Your task to perform on an android device: toggle translation in the chrome app Image 0: 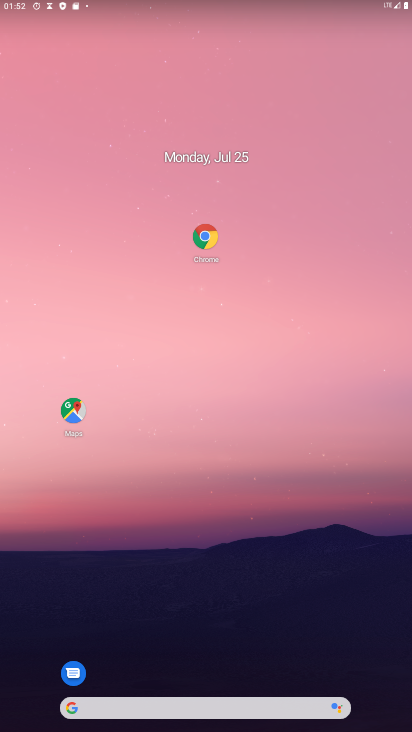
Step 0: drag from (206, 704) to (323, 70)
Your task to perform on an android device: toggle translation in the chrome app Image 1: 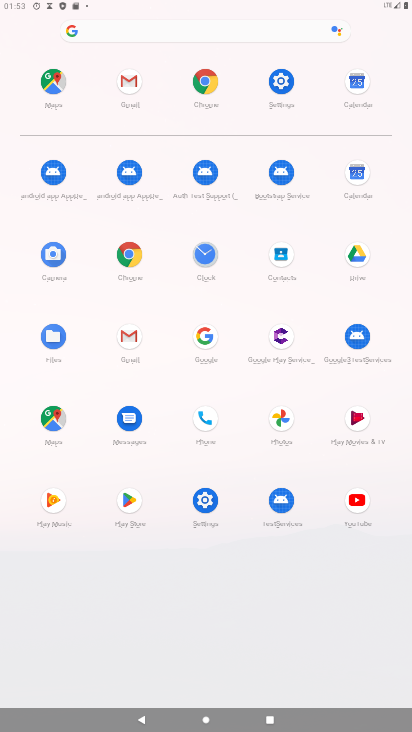
Step 1: click (133, 256)
Your task to perform on an android device: toggle translation in the chrome app Image 2: 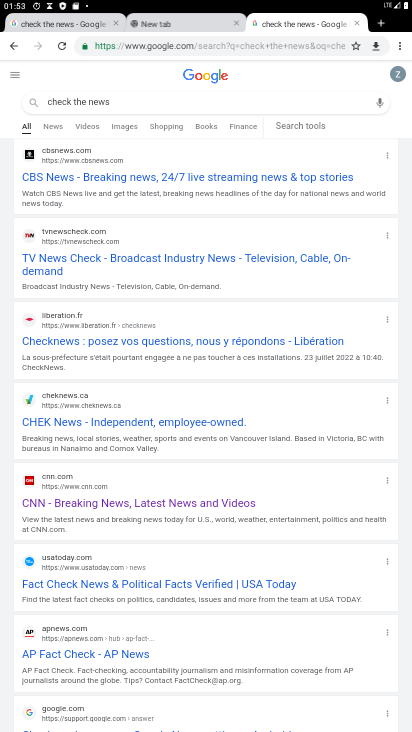
Step 2: drag from (396, 45) to (304, 280)
Your task to perform on an android device: toggle translation in the chrome app Image 3: 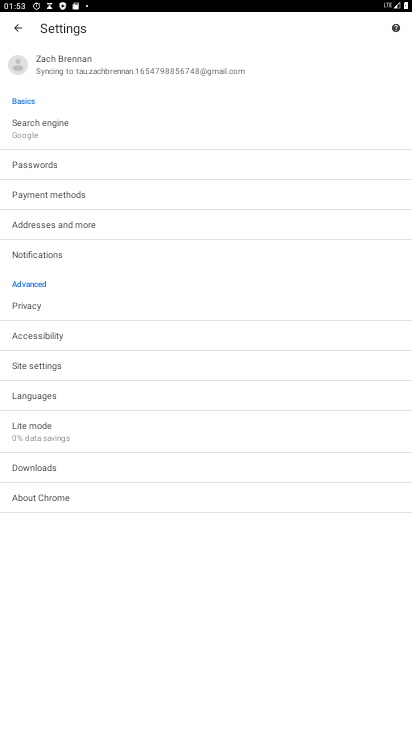
Step 3: click (72, 398)
Your task to perform on an android device: toggle translation in the chrome app Image 4: 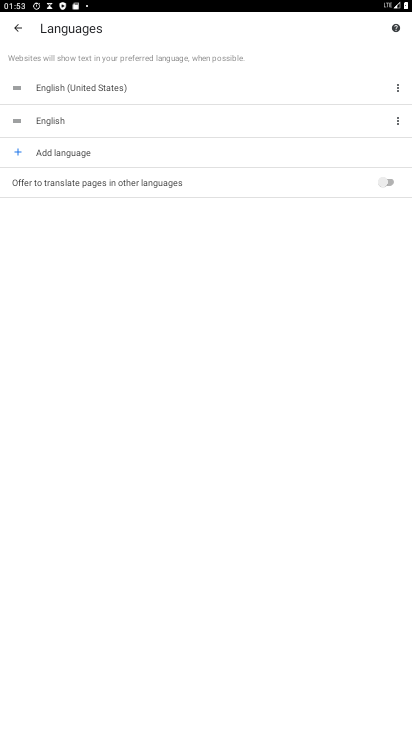
Step 4: click (386, 183)
Your task to perform on an android device: toggle translation in the chrome app Image 5: 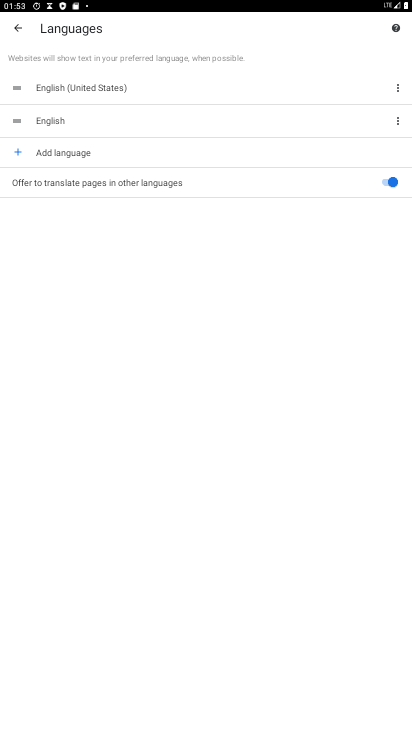
Step 5: task complete